Your task to perform on an android device: choose inbox layout in the gmail app Image 0: 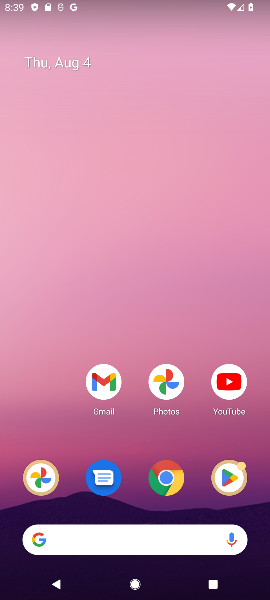
Step 0: press home button
Your task to perform on an android device: choose inbox layout in the gmail app Image 1: 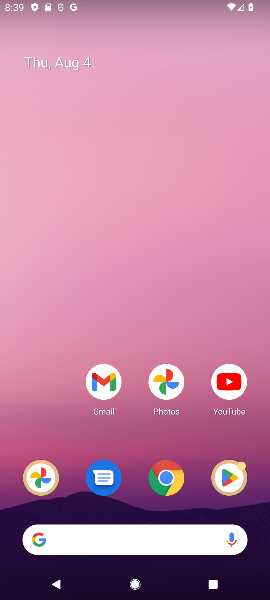
Step 1: click (107, 384)
Your task to perform on an android device: choose inbox layout in the gmail app Image 2: 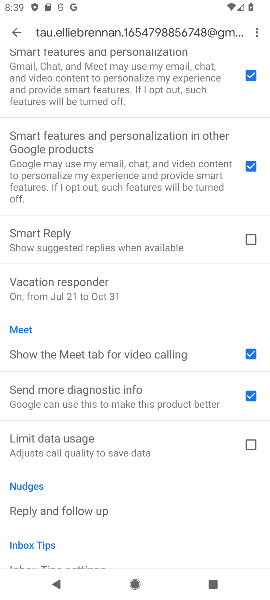
Step 2: drag from (108, 104) to (137, 595)
Your task to perform on an android device: choose inbox layout in the gmail app Image 3: 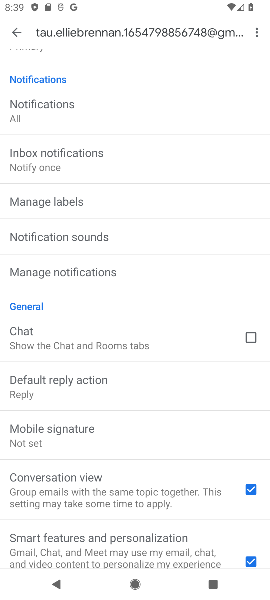
Step 3: drag from (87, 147) to (137, 552)
Your task to perform on an android device: choose inbox layout in the gmail app Image 4: 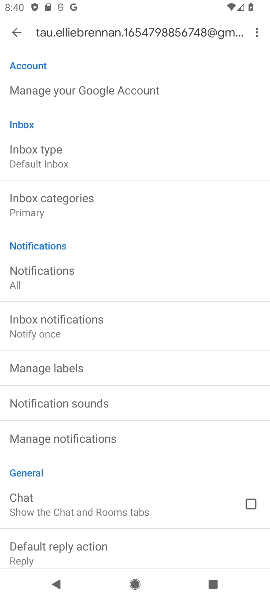
Step 4: click (45, 168)
Your task to perform on an android device: choose inbox layout in the gmail app Image 5: 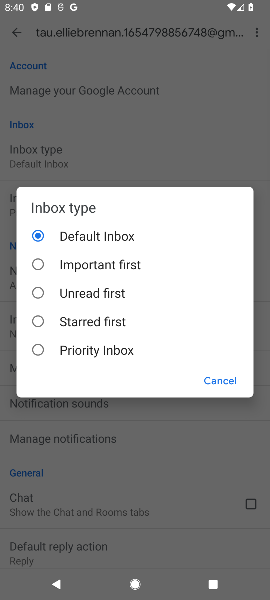
Step 5: click (96, 316)
Your task to perform on an android device: choose inbox layout in the gmail app Image 6: 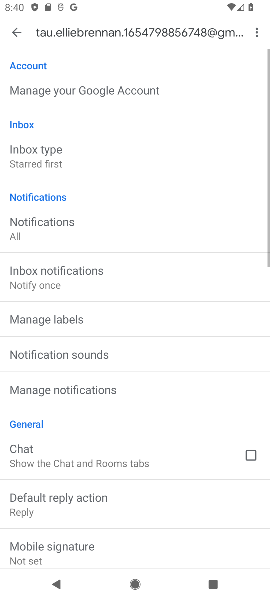
Step 6: task complete